Your task to perform on an android device: Add "energizer triple a" to the cart on ebay Image 0: 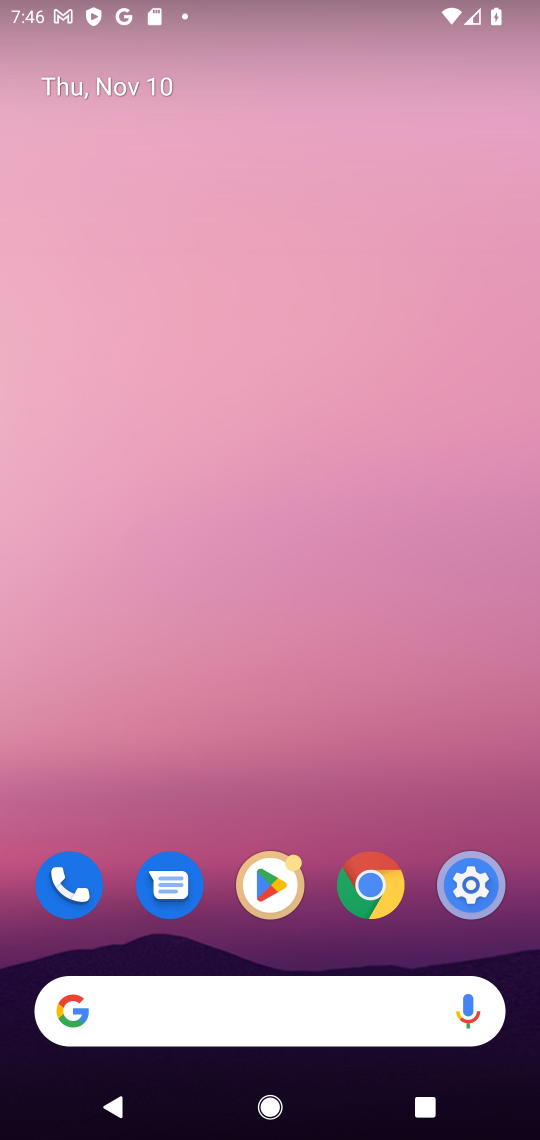
Step 0: click (382, 878)
Your task to perform on an android device: Add "energizer triple a" to the cart on ebay Image 1: 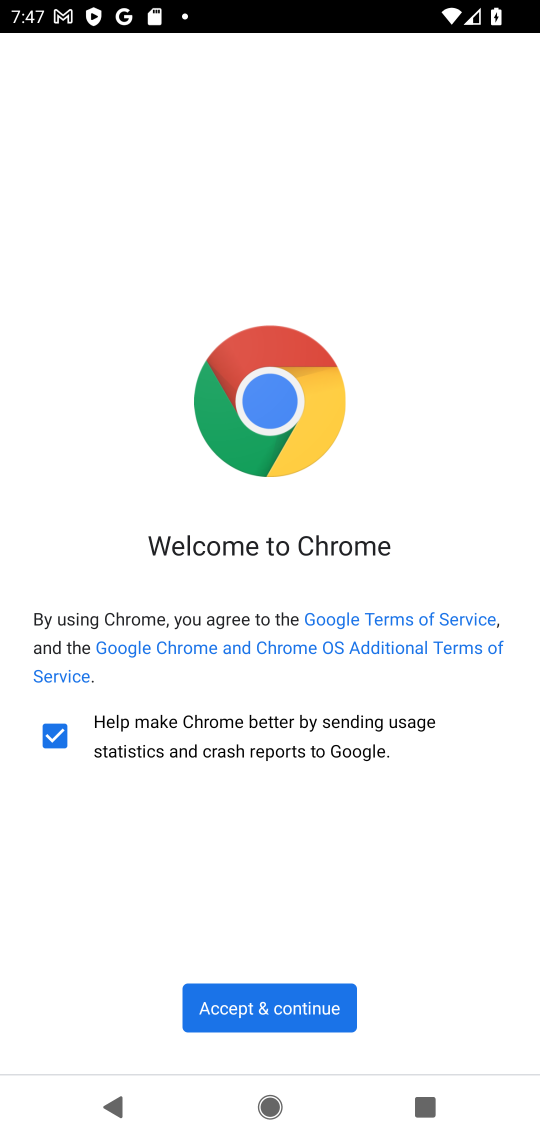
Step 1: click (301, 1007)
Your task to perform on an android device: Add "energizer triple a" to the cart on ebay Image 2: 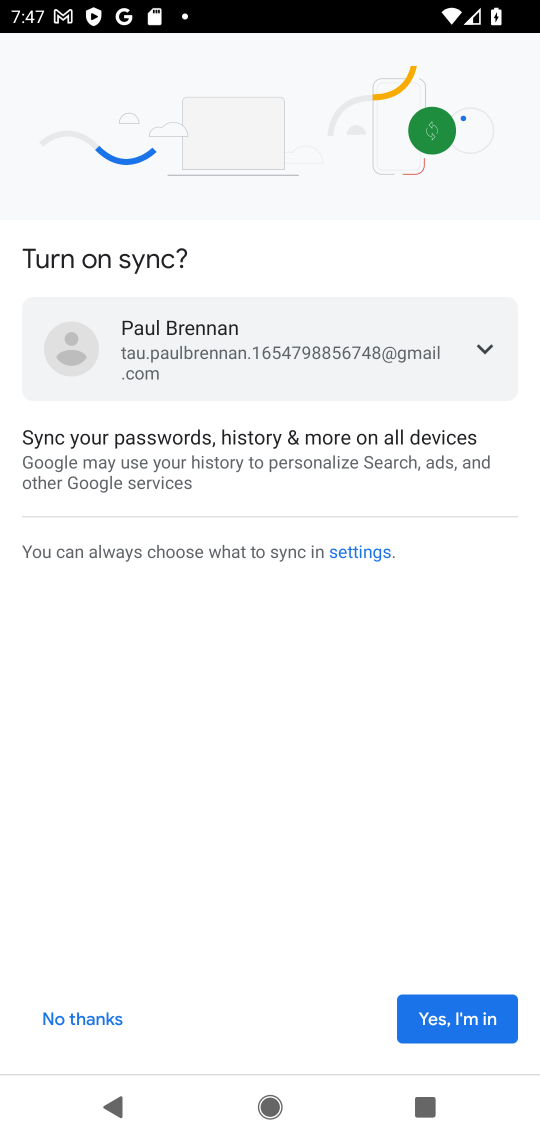
Step 2: click (436, 1015)
Your task to perform on an android device: Add "energizer triple a" to the cart on ebay Image 3: 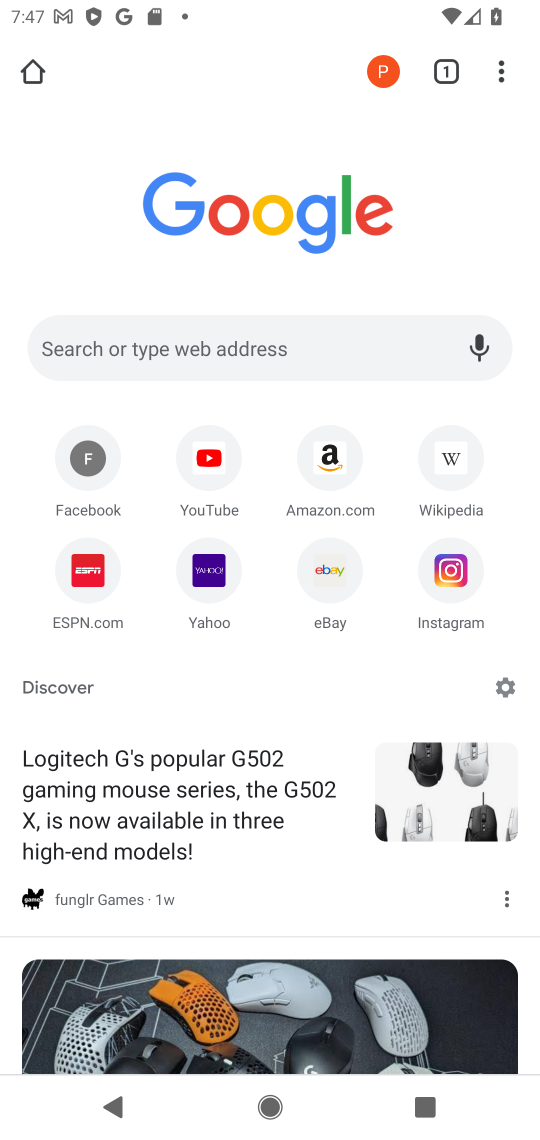
Step 3: click (383, 340)
Your task to perform on an android device: Add "energizer triple a" to the cart on ebay Image 4: 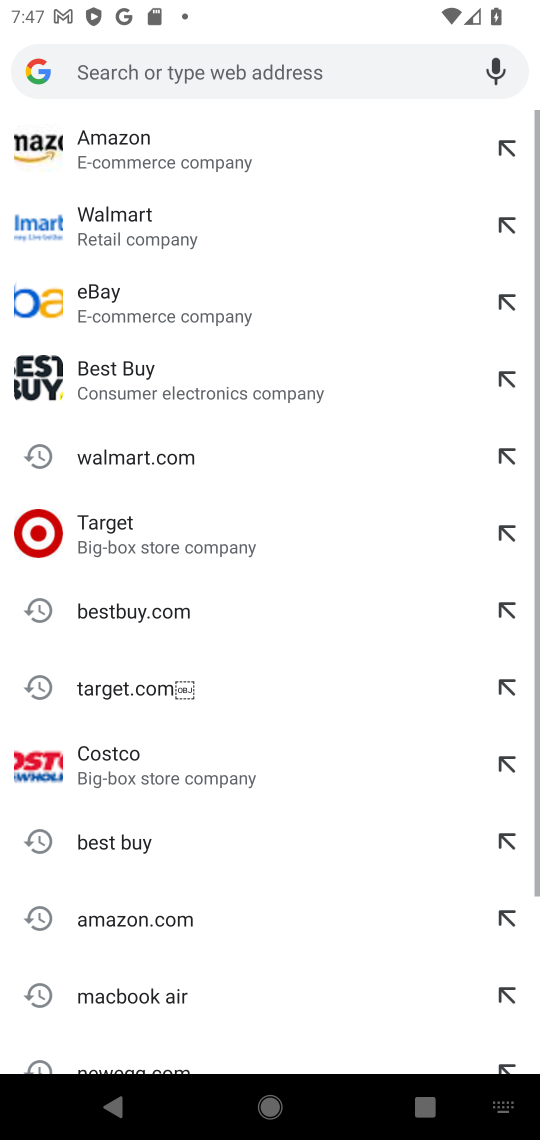
Step 4: type "ebay"
Your task to perform on an android device: Add "energizer triple a" to the cart on ebay Image 5: 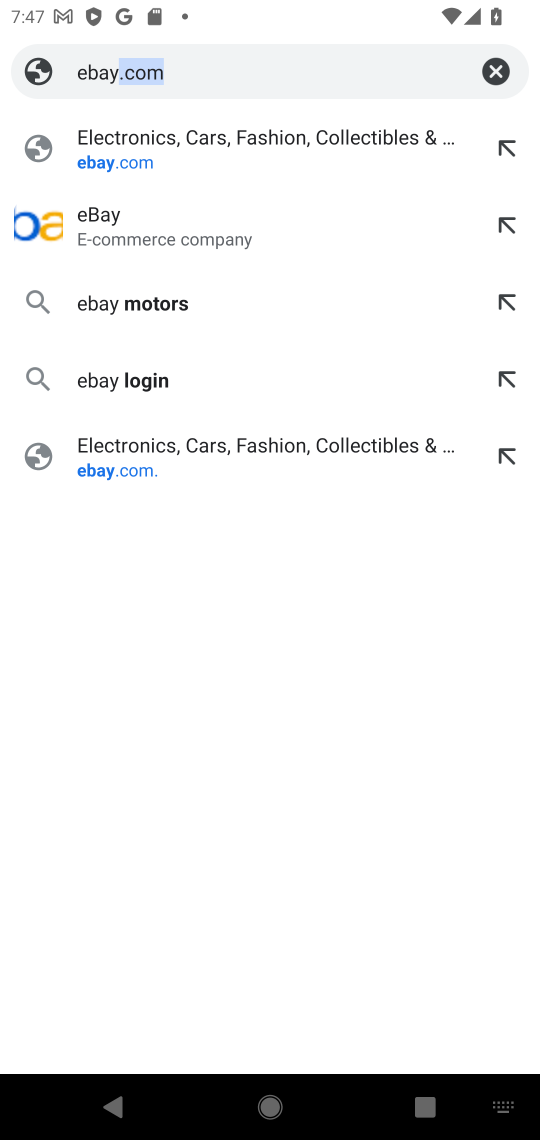
Step 5: click (218, 72)
Your task to perform on an android device: Add "energizer triple a" to the cart on ebay Image 6: 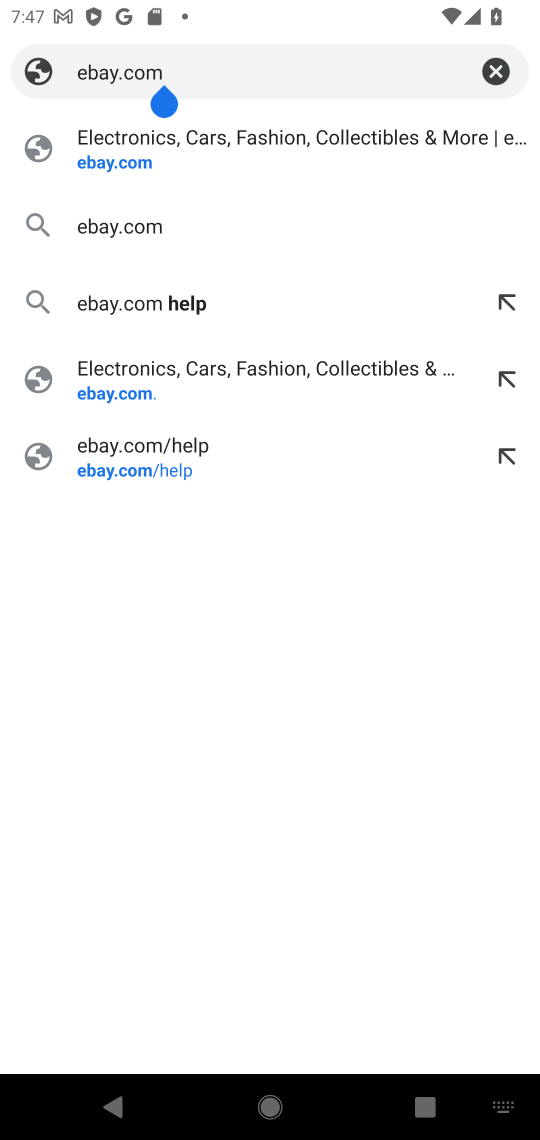
Step 6: click (122, 221)
Your task to perform on an android device: Add "energizer triple a" to the cart on ebay Image 7: 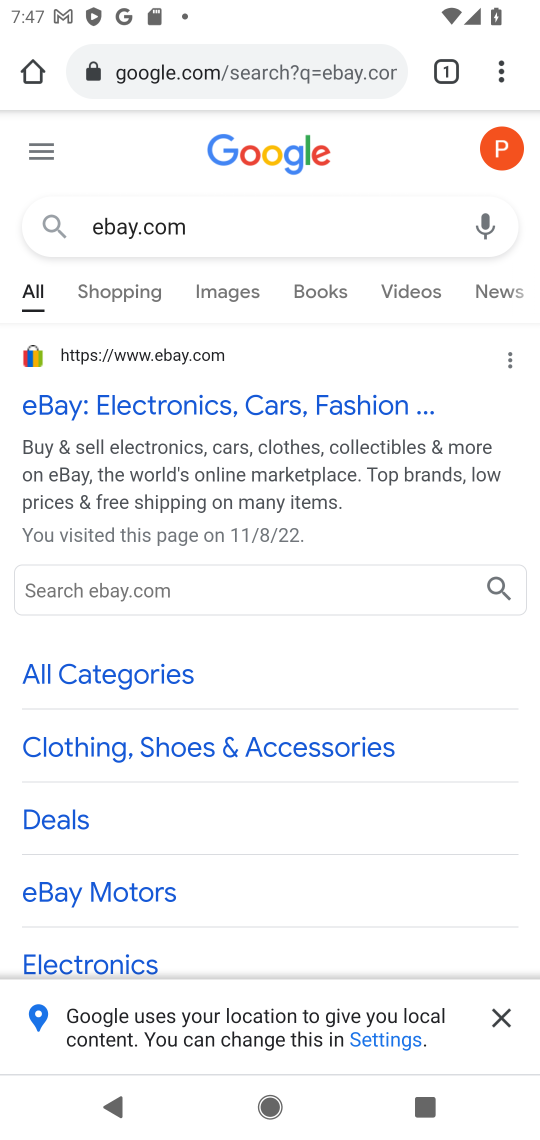
Step 7: click (137, 349)
Your task to perform on an android device: Add "energizer triple a" to the cart on ebay Image 8: 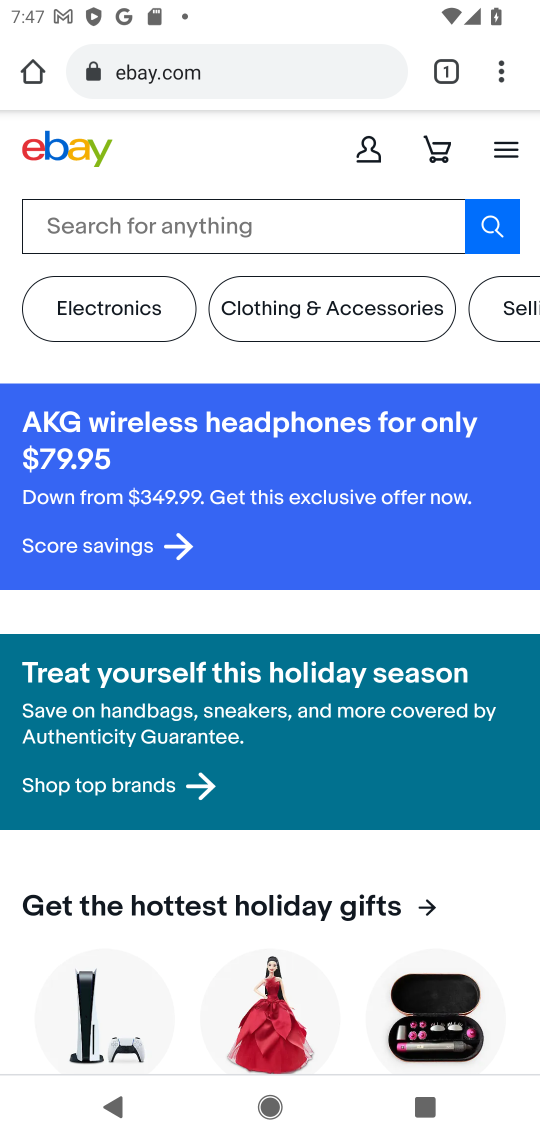
Step 8: click (202, 216)
Your task to perform on an android device: Add "energizer triple a" to the cart on ebay Image 9: 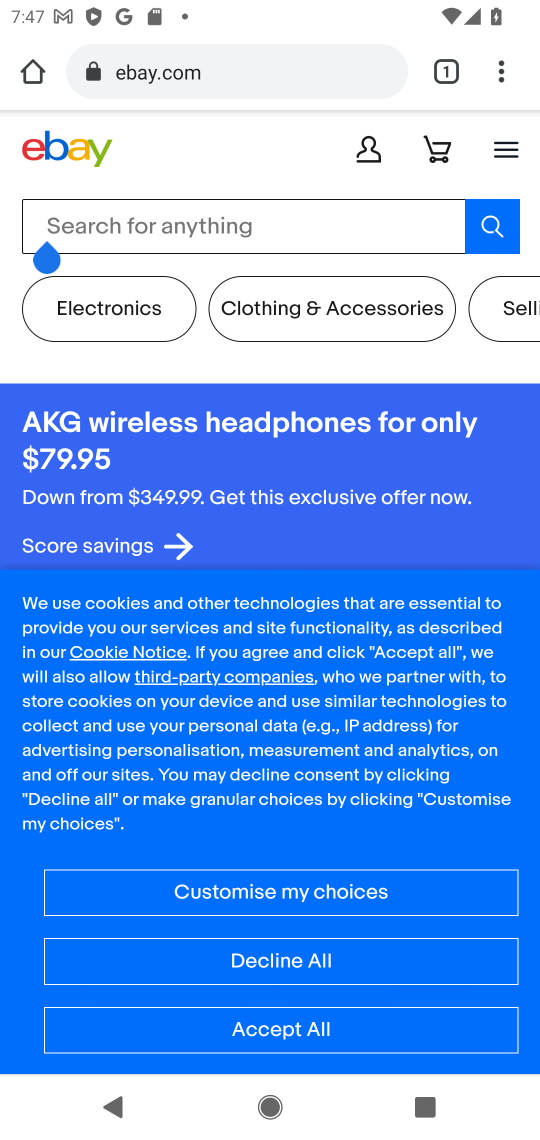
Step 9: type "energizer triple a"
Your task to perform on an android device: Add "energizer triple a" to the cart on ebay Image 10: 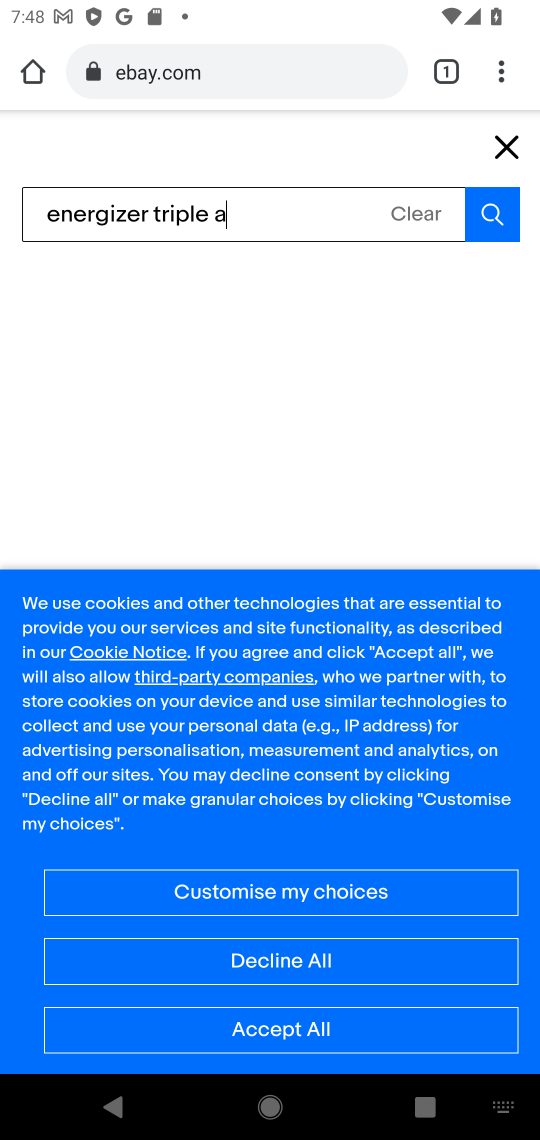
Step 10: click (293, 388)
Your task to perform on an android device: Add "energizer triple a" to the cart on ebay Image 11: 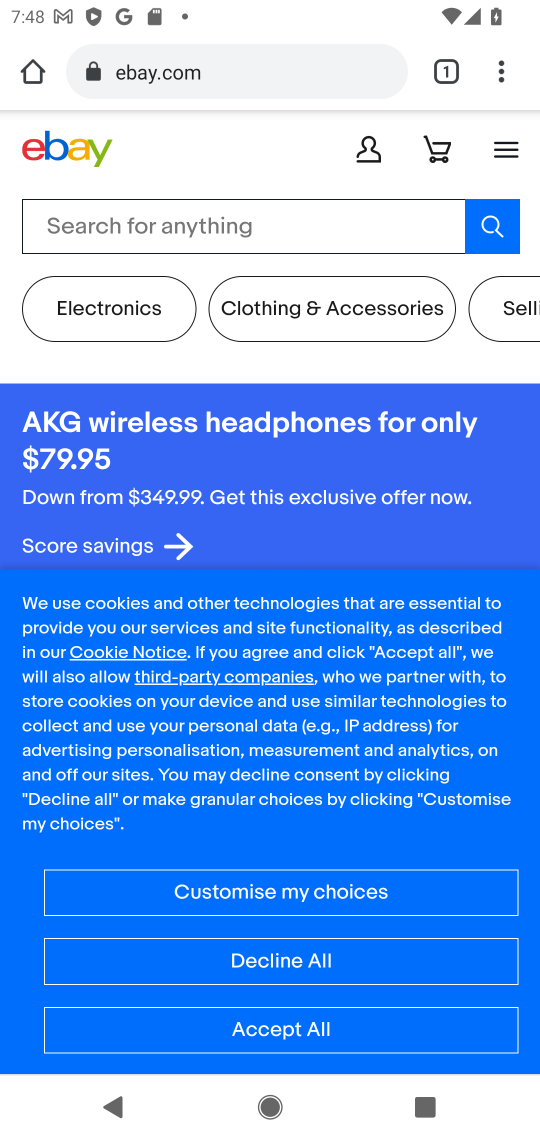
Step 11: click (204, 360)
Your task to perform on an android device: Add "energizer triple a" to the cart on ebay Image 12: 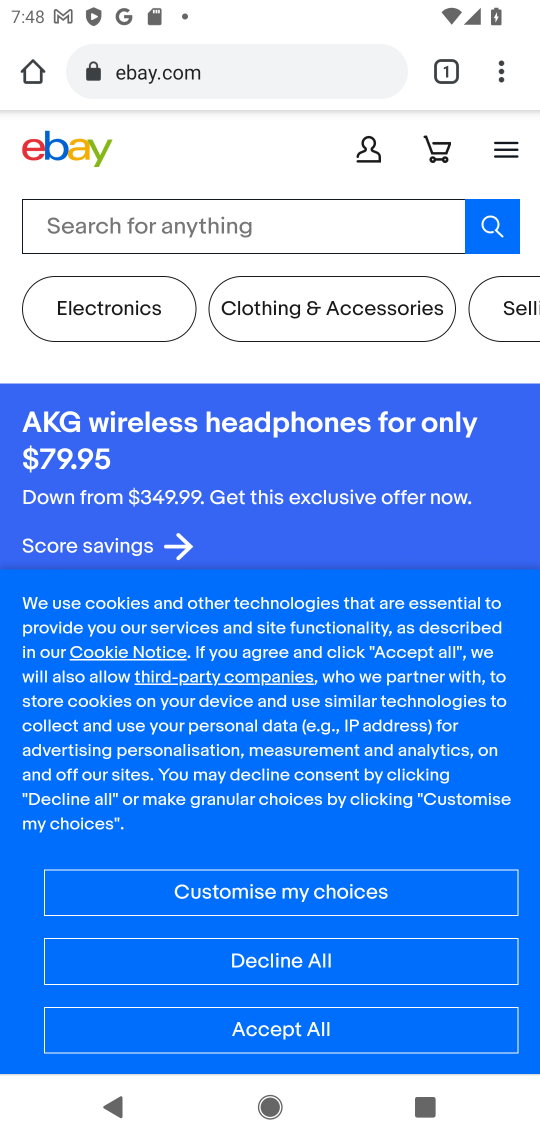
Step 12: task complete